Your task to perform on an android device: turn on data saver in the chrome app Image 0: 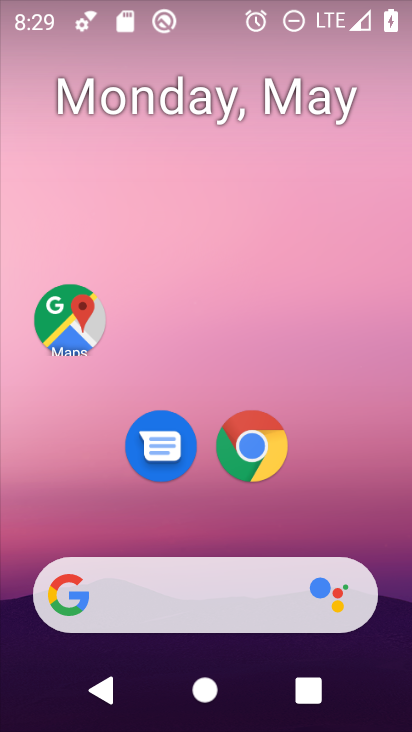
Step 0: click (247, 446)
Your task to perform on an android device: turn on data saver in the chrome app Image 1: 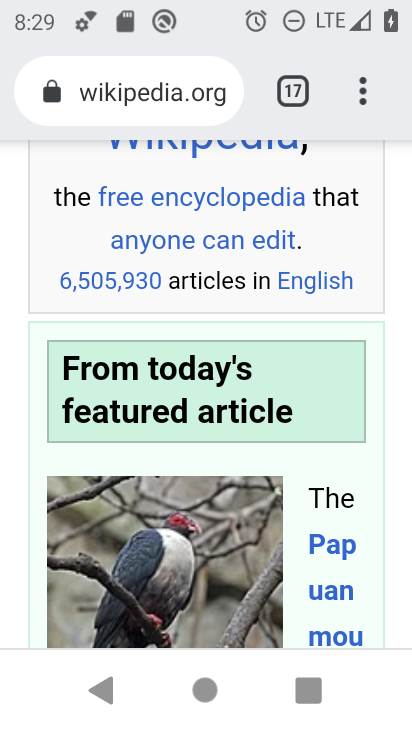
Step 1: click (357, 90)
Your task to perform on an android device: turn on data saver in the chrome app Image 2: 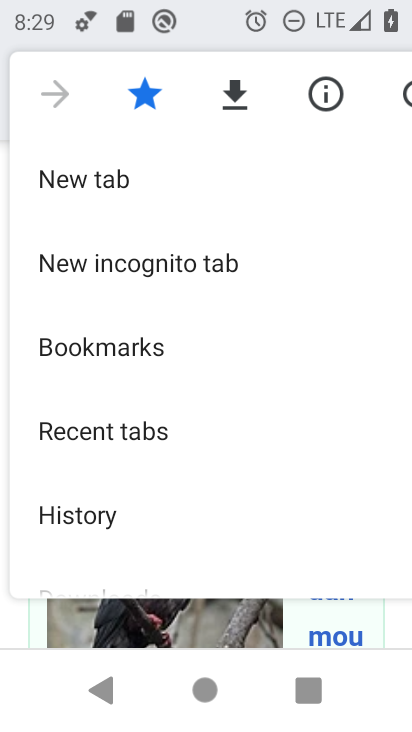
Step 2: drag from (174, 447) to (137, 95)
Your task to perform on an android device: turn on data saver in the chrome app Image 3: 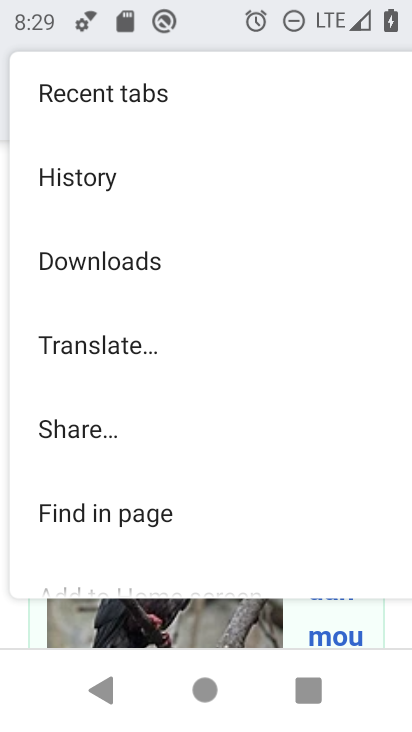
Step 3: drag from (184, 392) to (173, 168)
Your task to perform on an android device: turn on data saver in the chrome app Image 4: 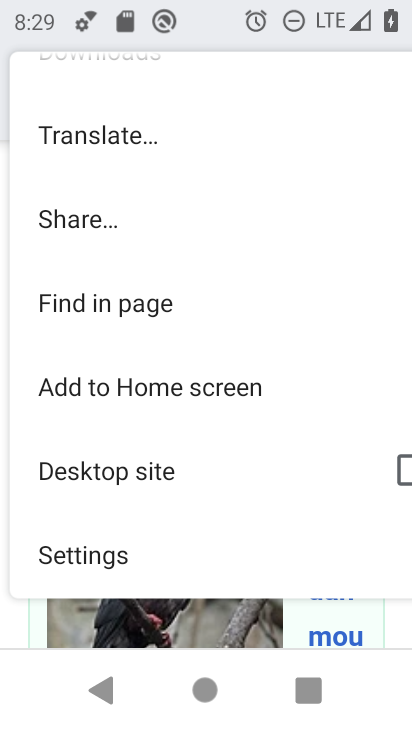
Step 4: click (72, 552)
Your task to perform on an android device: turn on data saver in the chrome app Image 5: 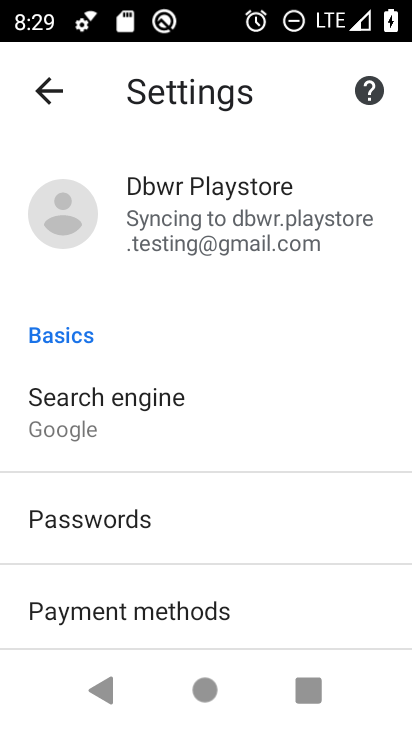
Step 5: drag from (264, 533) to (198, 200)
Your task to perform on an android device: turn on data saver in the chrome app Image 6: 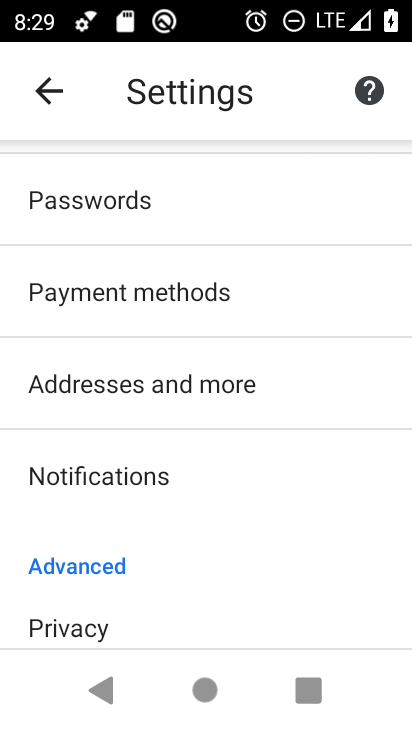
Step 6: drag from (271, 456) to (241, 178)
Your task to perform on an android device: turn on data saver in the chrome app Image 7: 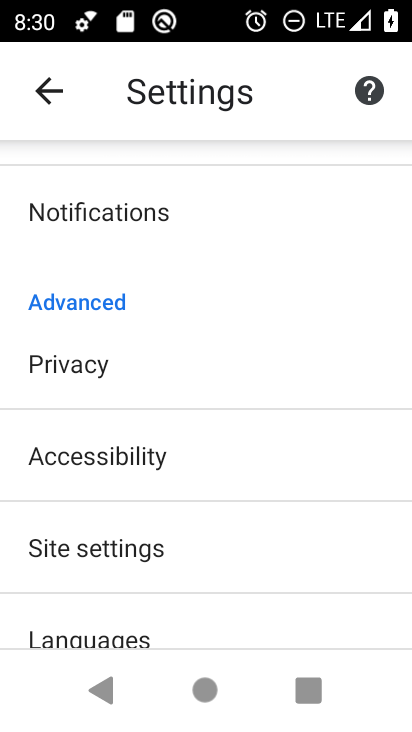
Step 7: drag from (194, 560) to (191, 299)
Your task to perform on an android device: turn on data saver in the chrome app Image 8: 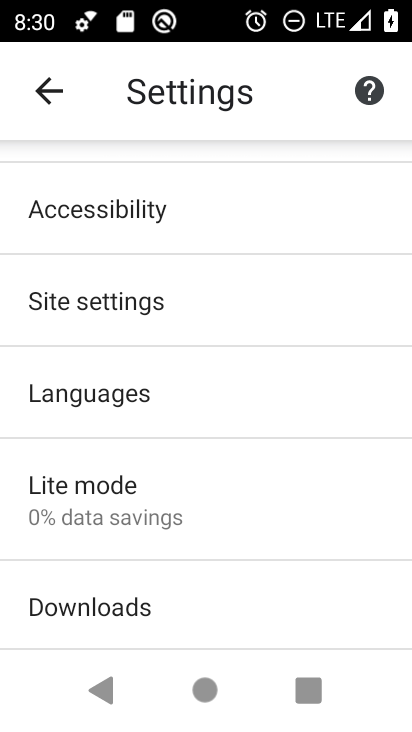
Step 8: click (89, 495)
Your task to perform on an android device: turn on data saver in the chrome app Image 9: 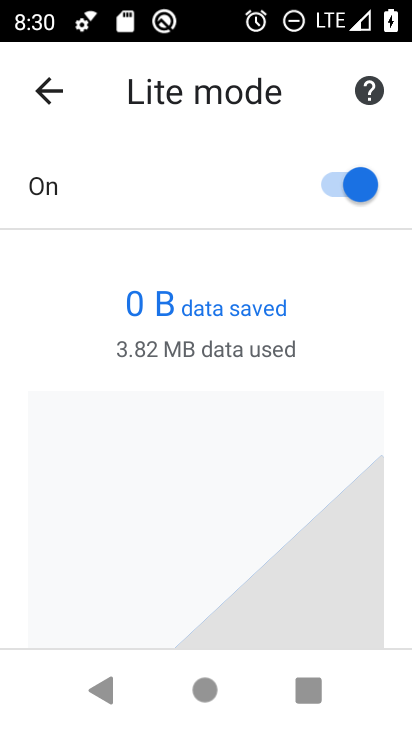
Step 9: task complete